Your task to perform on an android device: Open battery settings Image 0: 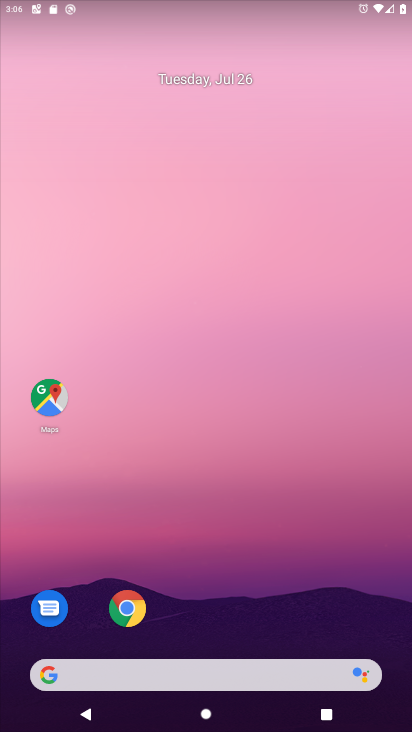
Step 0: drag from (236, 602) to (223, 141)
Your task to perform on an android device: Open battery settings Image 1: 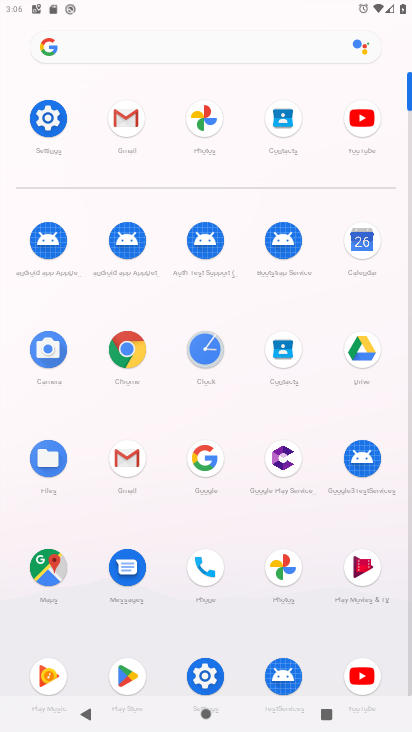
Step 1: click (43, 127)
Your task to perform on an android device: Open battery settings Image 2: 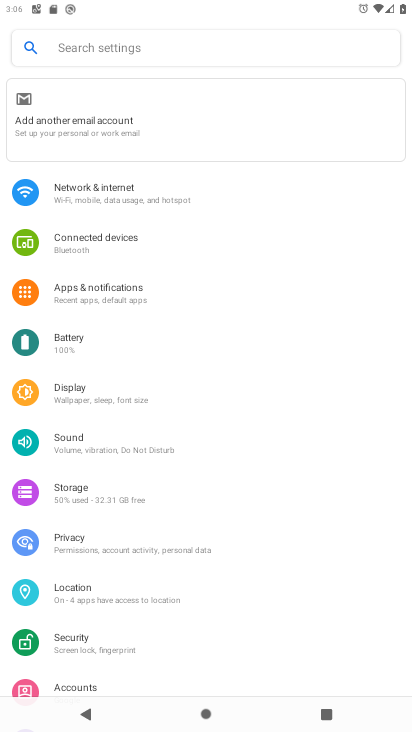
Step 2: click (45, 347)
Your task to perform on an android device: Open battery settings Image 3: 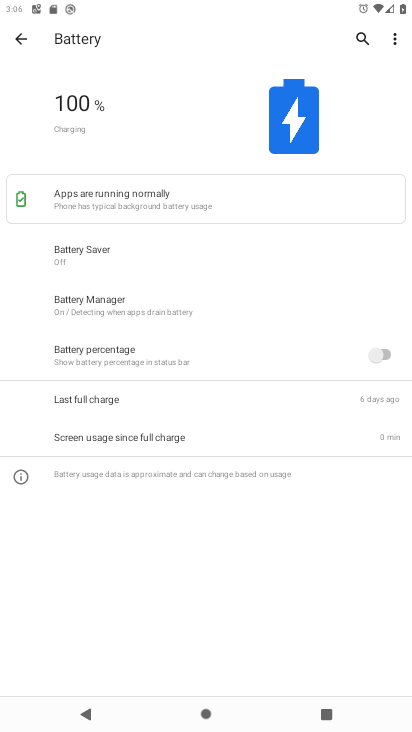
Step 3: task complete